Your task to perform on an android device: open app "PUBG MOBILE" (install if not already installed) and enter user name: "phenomenologically@gmail.com" and password: "artillery" Image 0: 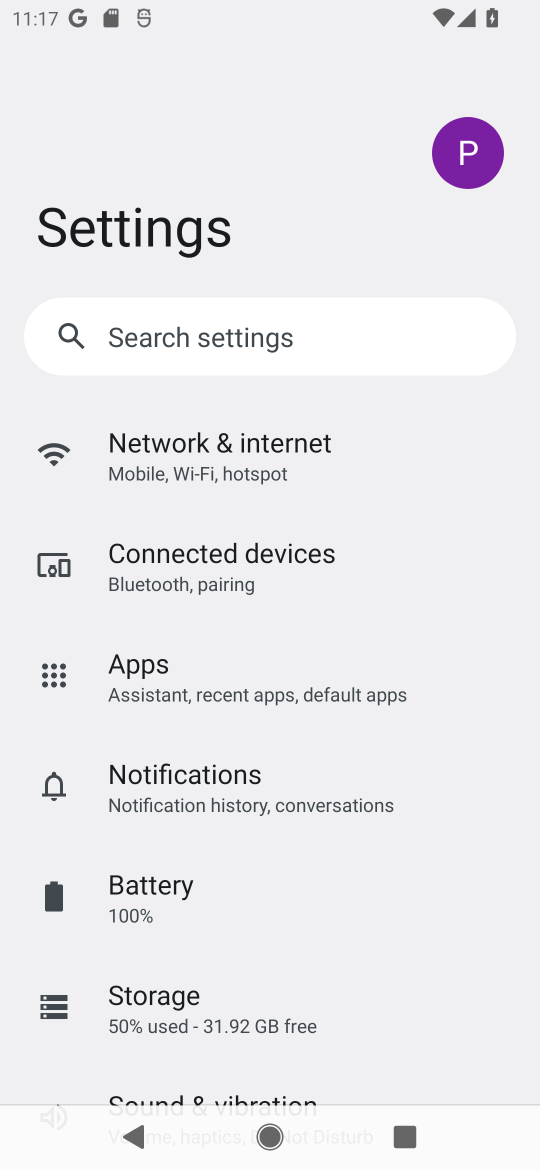
Step 0: press back button
Your task to perform on an android device: open app "PUBG MOBILE" (install if not already installed) and enter user name: "phenomenologically@gmail.com" and password: "artillery" Image 1: 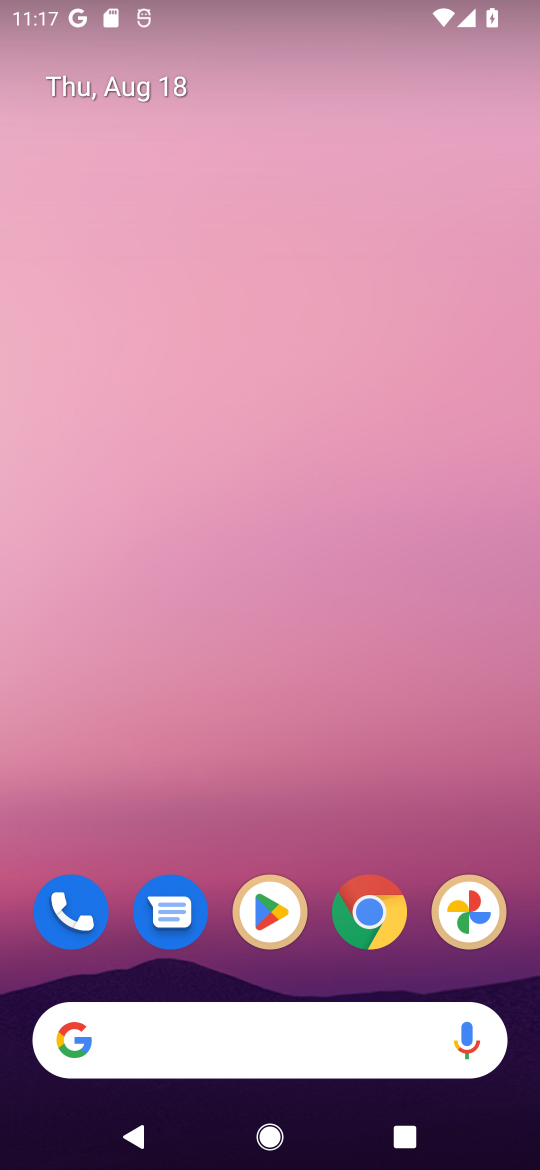
Step 1: click (291, 905)
Your task to perform on an android device: open app "PUBG MOBILE" (install if not already installed) and enter user name: "phenomenologically@gmail.com" and password: "artillery" Image 2: 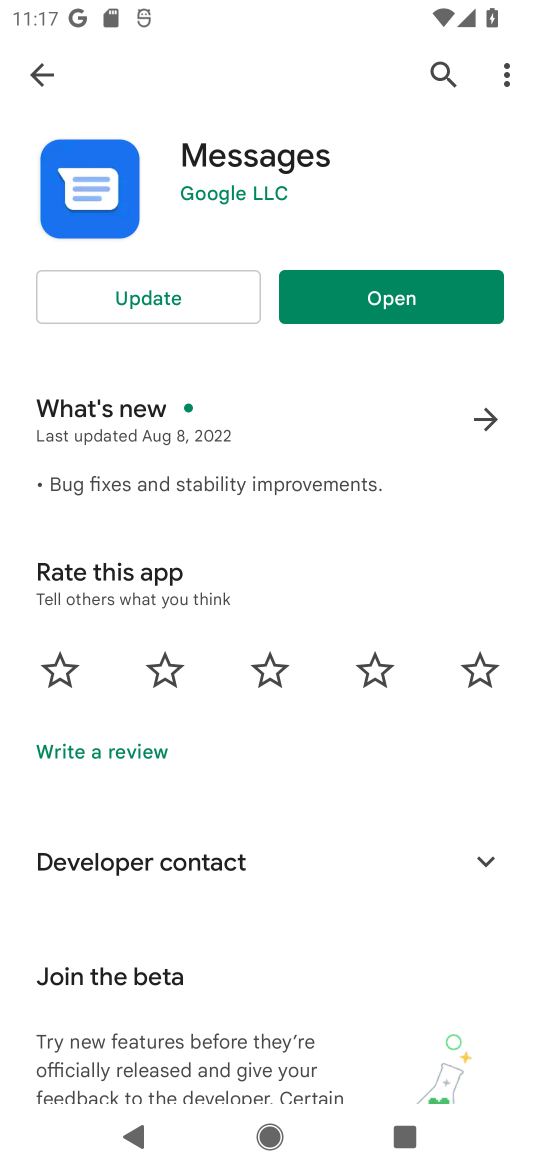
Step 2: click (441, 57)
Your task to perform on an android device: open app "PUBG MOBILE" (install if not already installed) and enter user name: "phenomenologically@gmail.com" and password: "artillery" Image 3: 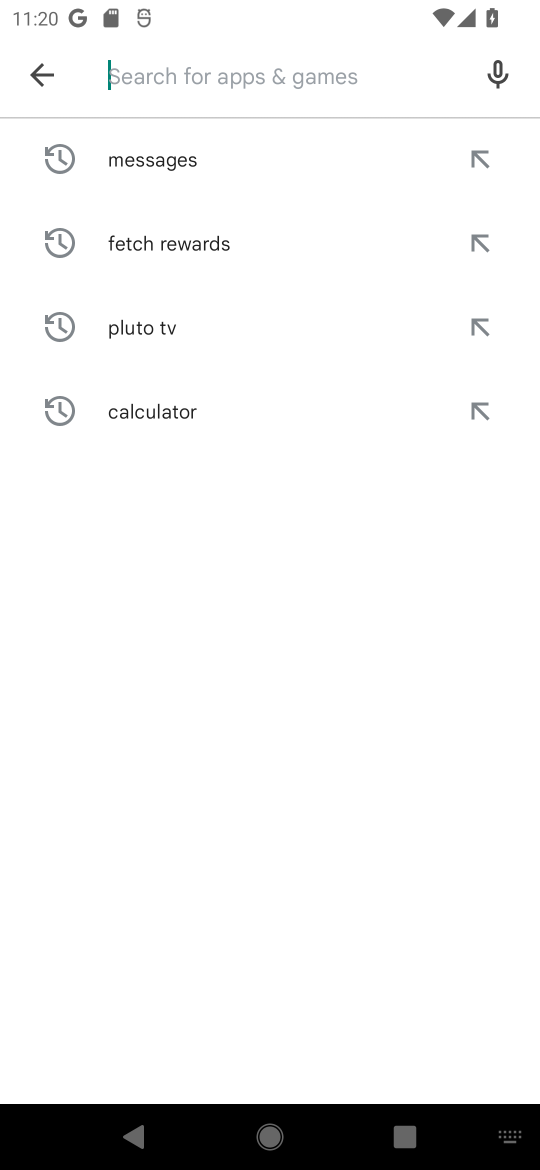
Step 3: click (142, 73)
Your task to perform on an android device: open app "PUBG MOBILE" (install if not already installed) and enter user name: "phenomenologically@gmail.com" and password: "artillery" Image 4: 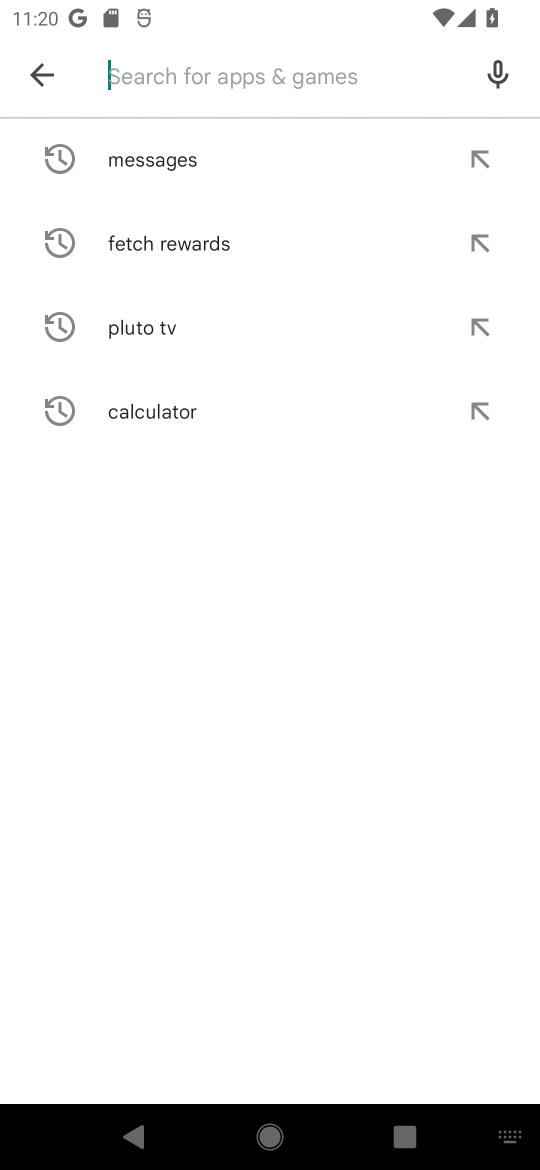
Step 4: type "PUBG MOBILE"
Your task to perform on an android device: open app "PUBG MOBILE" (install if not already installed) and enter user name: "phenomenologically@gmail.com" and password: "artillery" Image 5: 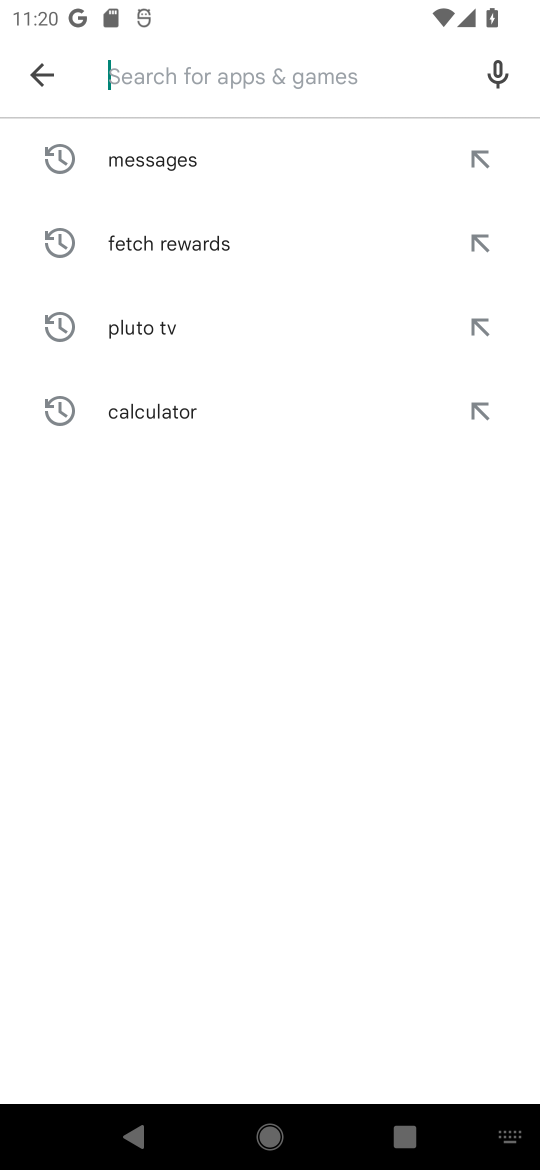
Step 5: click (176, 692)
Your task to perform on an android device: open app "PUBG MOBILE" (install if not already installed) and enter user name: "phenomenologically@gmail.com" and password: "artillery" Image 6: 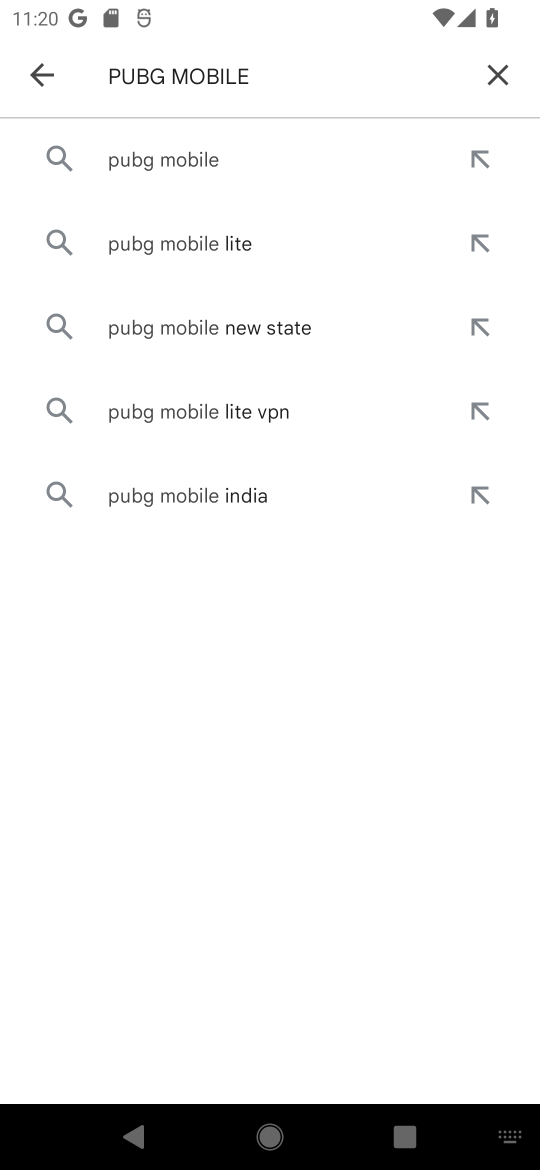
Step 6: click (224, 133)
Your task to perform on an android device: open app "PUBG MOBILE" (install if not already installed) and enter user name: "phenomenologically@gmail.com" and password: "artillery" Image 7: 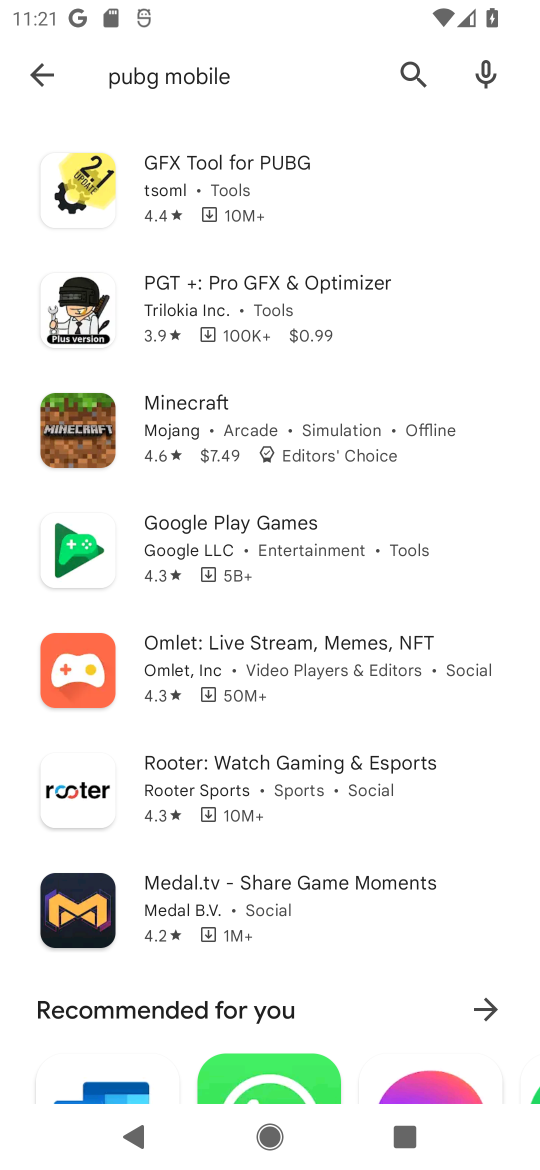
Step 7: task complete